Your task to perform on an android device: Search for vegetarian restaurants on Maps Image 0: 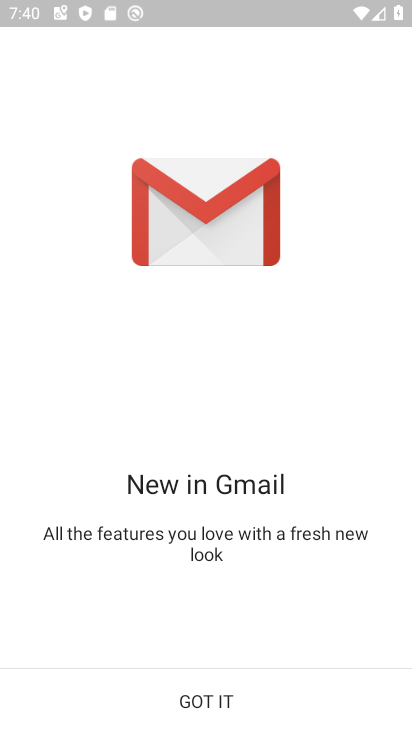
Step 0: click (201, 696)
Your task to perform on an android device: Search for vegetarian restaurants on Maps Image 1: 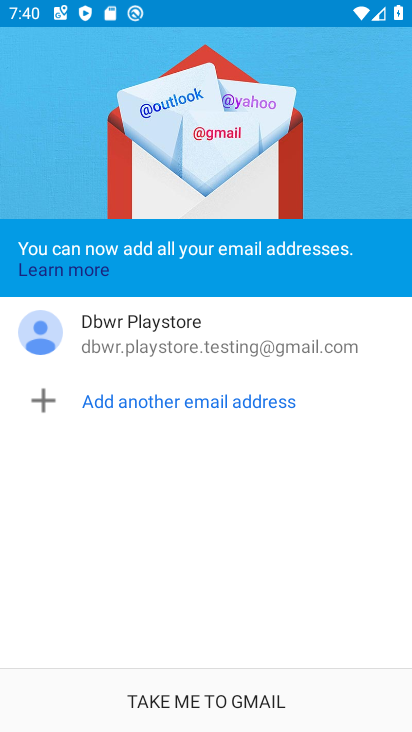
Step 1: press home button
Your task to perform on an android device: Search for vegetarian restaurants on Maps Image 2: 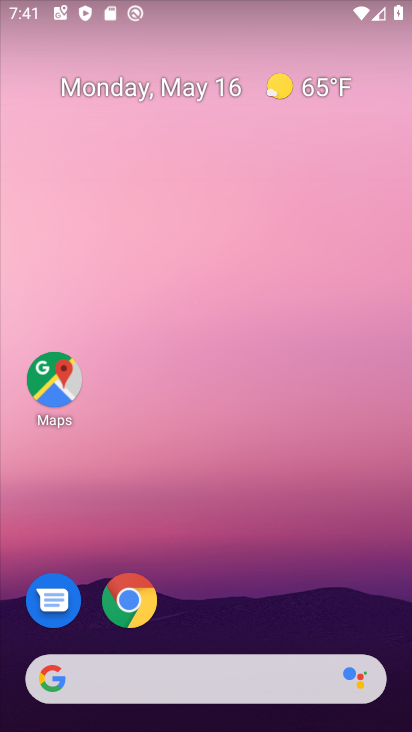
Step 2: drag from (198, 626) to (278, 277)
Your task to perform on an android device: Search for vegetarian restaurants on Maps Image 3: 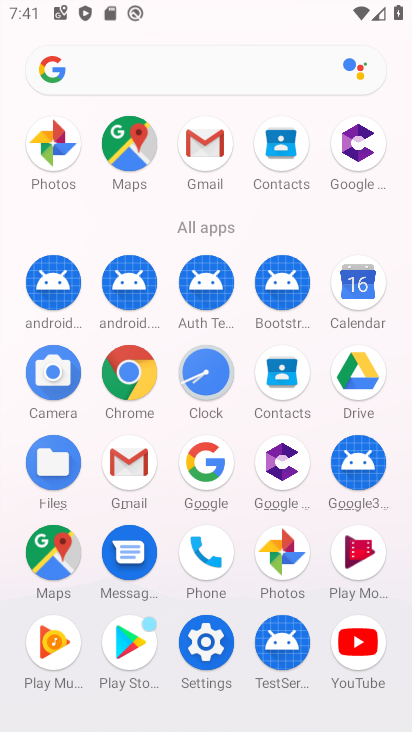
Step 3: click (70, 555)
Your task to perform on an android device: Search for vegetarian restaurants on Maps Image 4: 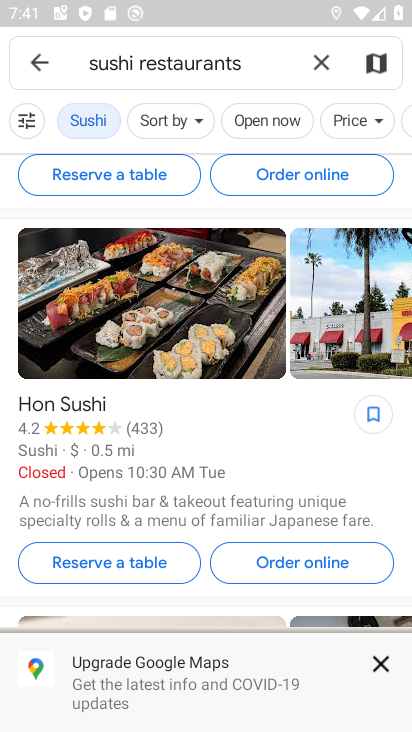
Step 4: click (329, 66)
Your task to perform on an android device: Search for vegetarian restaurants on Maps Image 5: 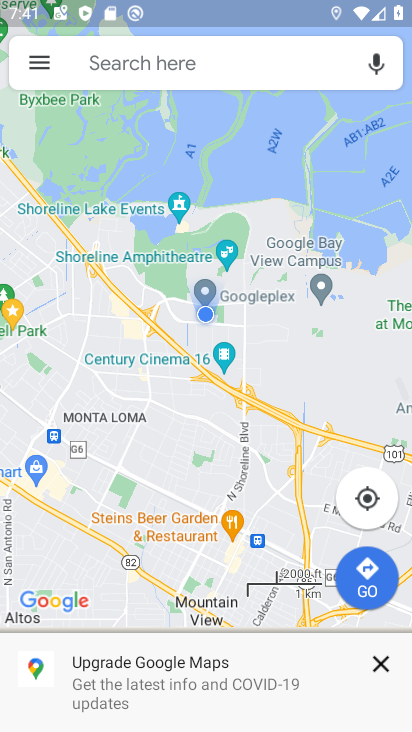
Step 5: click (147, 75)
Your task to perform on an android device: Search for vegetarian restaurants on Maps Image 6: 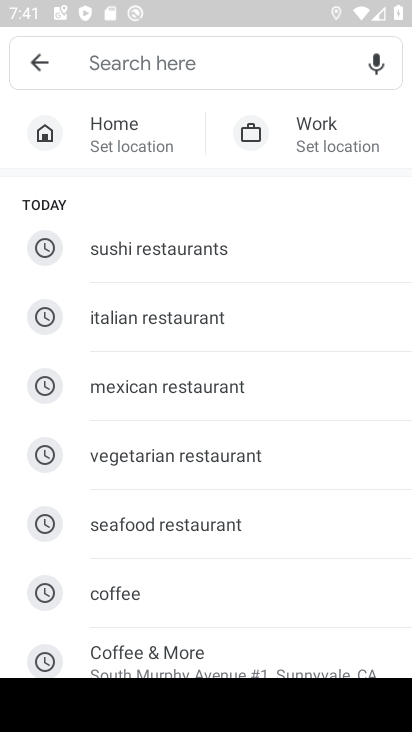
Step 6: click (173, 455)
Your task to perform on an android device: Search for vegetarian restaurants on Maps Image 7: 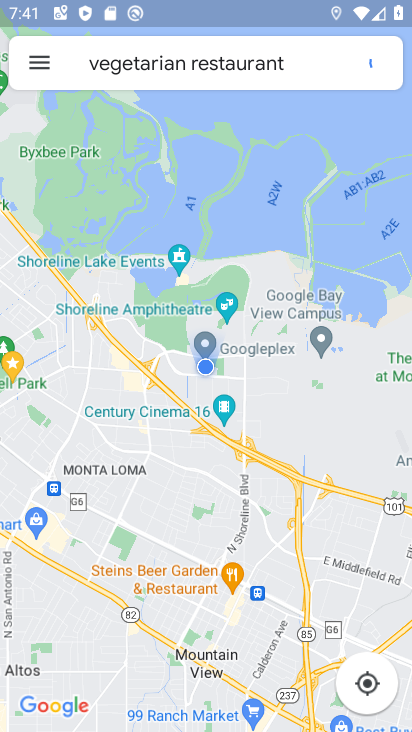
Step 7: task complete